Your task to perform on an android device: Open settings on Google Maps Image 0: 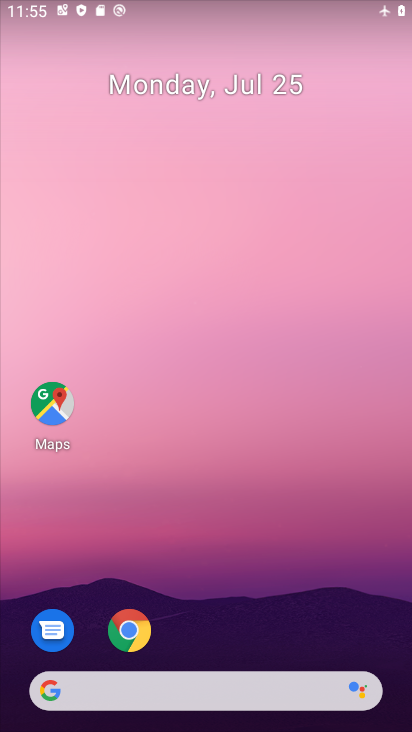
Step 0: press home button
Your task to perform on an android device: Open settings on Google Maps Image 1: 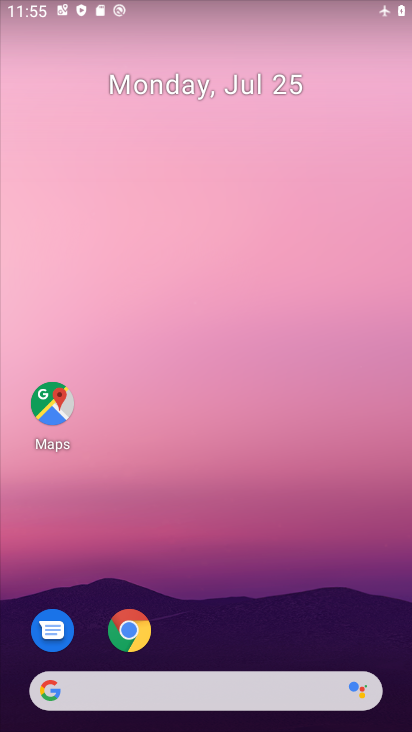
Step 1: drag from (366, 637) to (356, 406)
Your task to perform on an android device: Open settings on Google Maps Image 2: 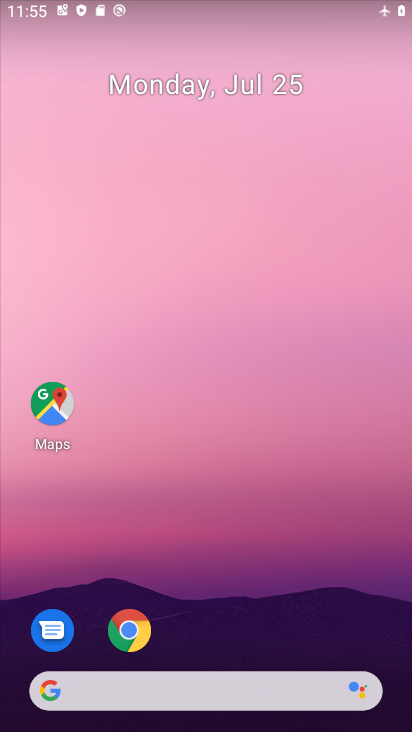
Step 2: drag from (343, 595) to (352, 119)
Your task to perform on an android device: Open settings on Google Maps Image 3: 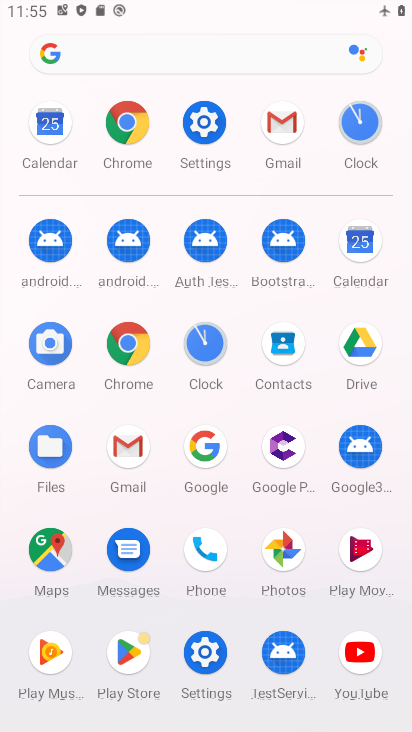
Step 3: click (52, 560)
Your task to perform on an android device: Open settings on Google Maps Image 4: 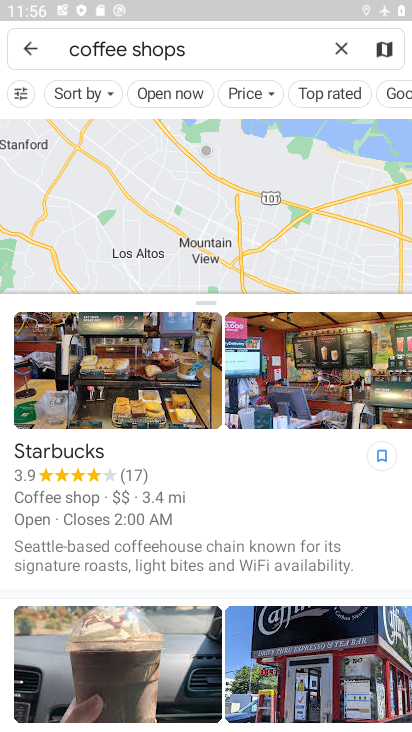
Step 4: press back button
Your task to perform on an android device: Open settings on Google Maps Image 5: 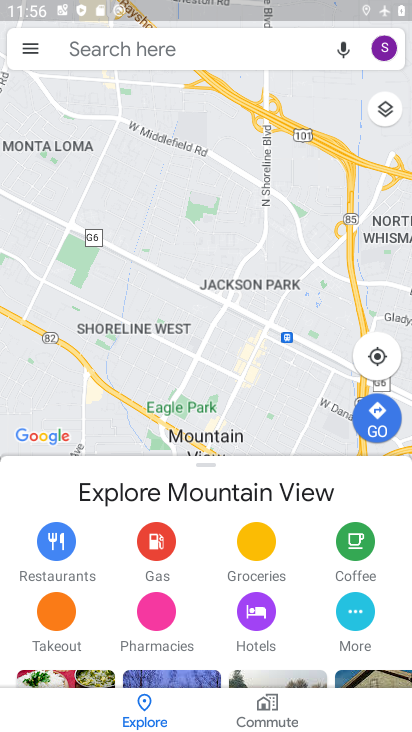
Step 5: click (28, 48)
Your task to perform on an android device: Open settings on Google Maps Image 6: 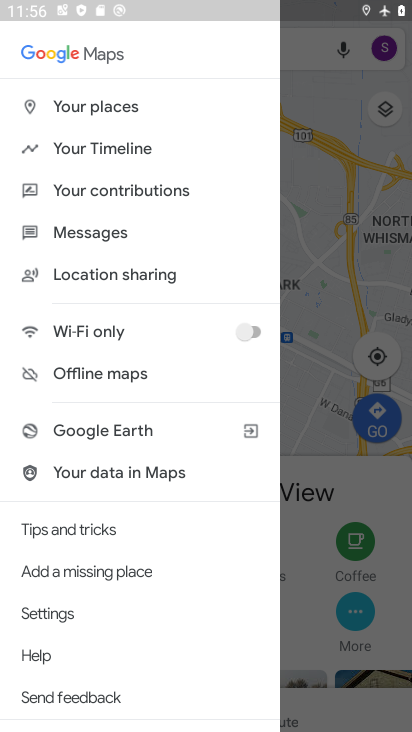
Step 6: click (67, 608)
Your task to perform on an android device: Open settings on Google Maps Image 7: 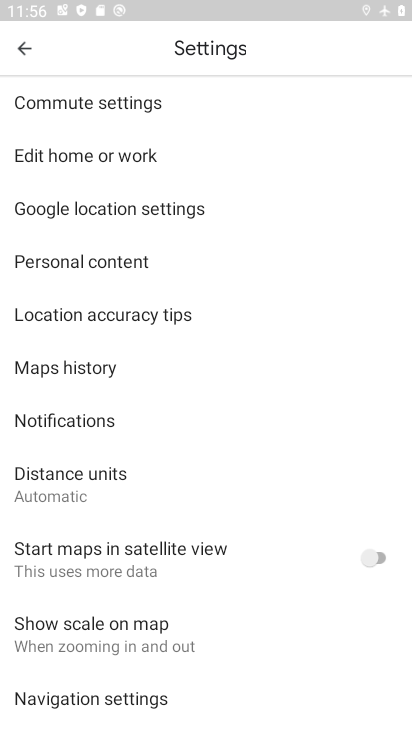
Step 7: task complete